Your task to perform on an android device: stop showing notifications on the lock screen Image 0: 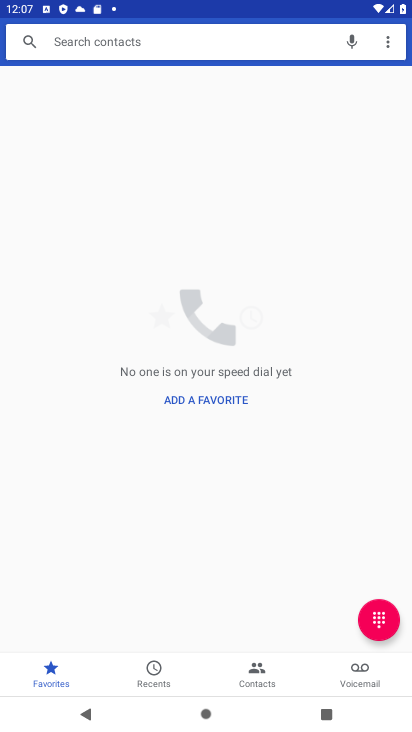
Step 0: press home button
Your task to perform on an android device: stop showing notifications on the lock screen Image 1: 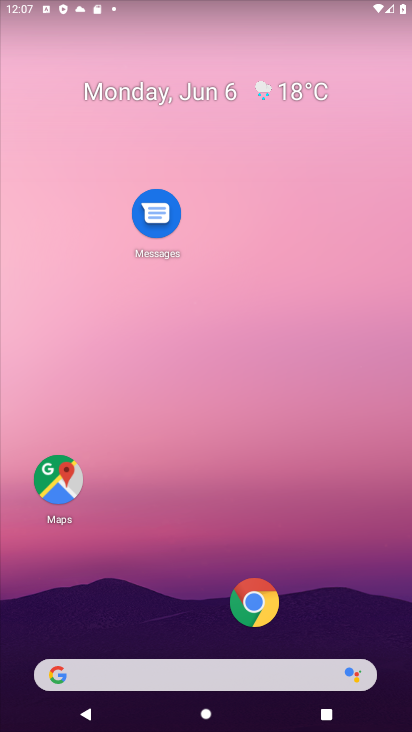
Step 1: click (263, 619)
Your task to perform on an android device: stop showing notifications on the lock screen Image 2: 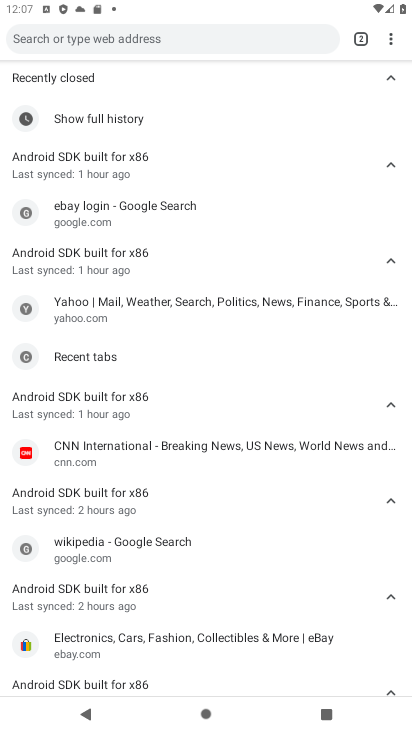
Step 2: task complete